Your task to perform on an android device: turn on javascript in the chrome app Image 0: 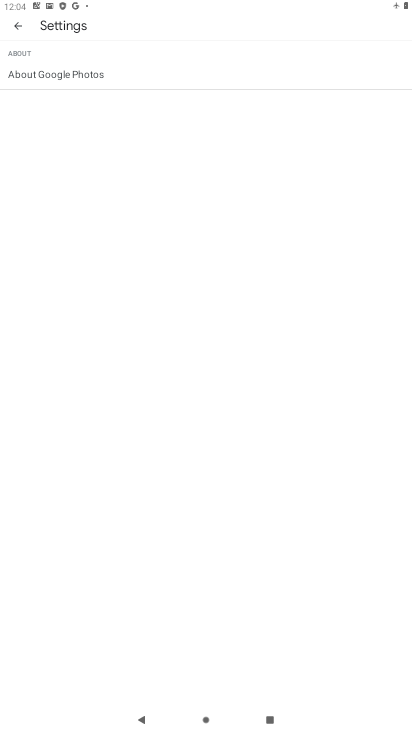
Step 0: press home button
Your task to perform on an android device: turn on javascript in the chrome app Image 1: 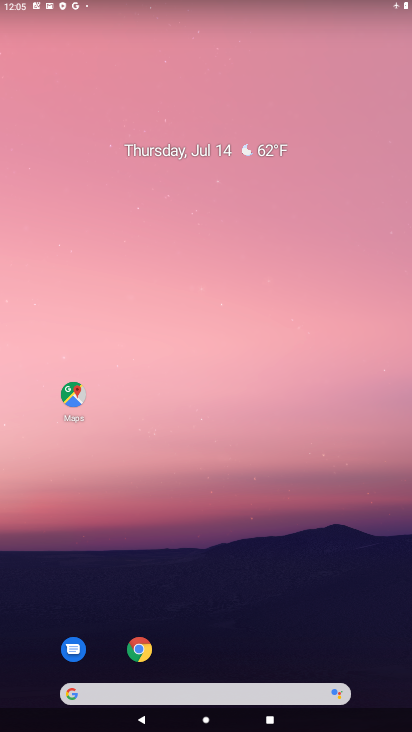
Step 1: drag from (376, 634) to (201, 180)
Your task to perform on an android device: turn on javascript in the chrome app Image 2: 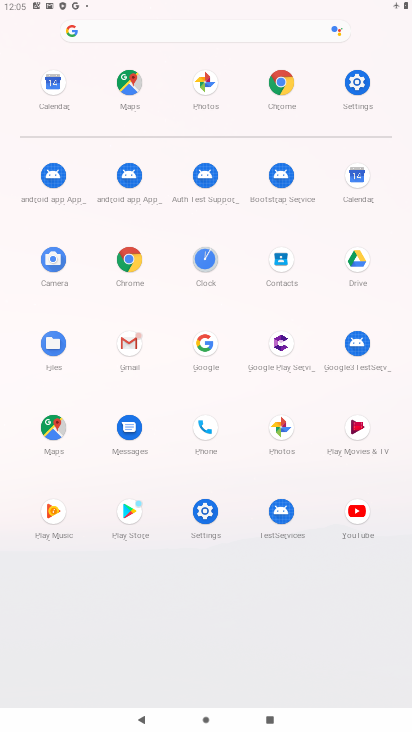
Step 2: click (127, 260)
Your task to perform on an android device: turn on javascript in the chrome app Image 3: 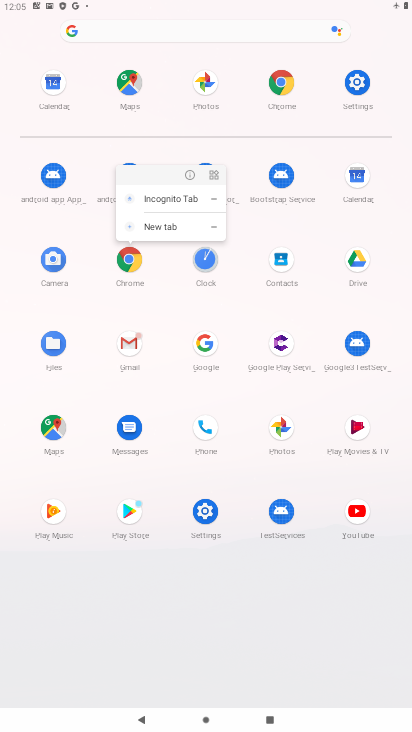
Step 3: click (134, 259)
Your task to perform on an android device: turn on javascript in the chrome app Image 4: 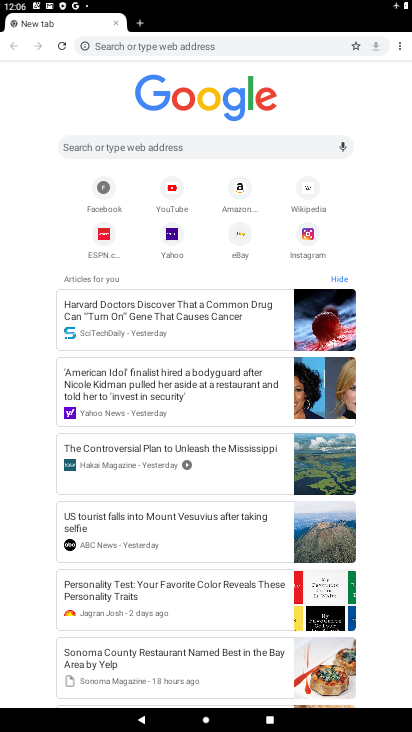
Step 4: click (395, 41)
Your task to perform on an android device: turn on javascript in the chrome app Image 5: 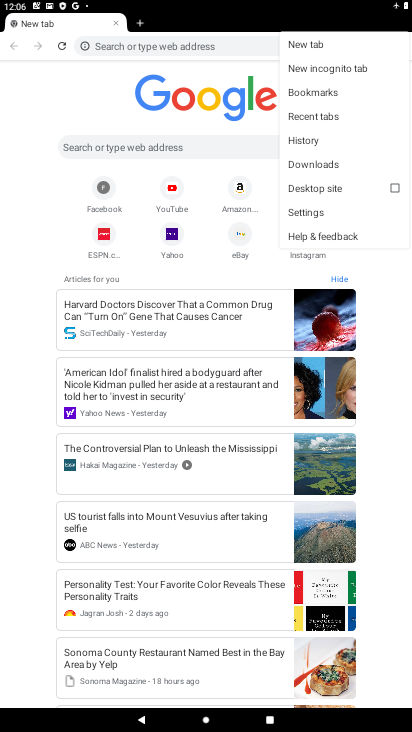
Step 5: click (302, 211)
Your task to perform on an android device: turn on javascript in the chrome app Image 6: 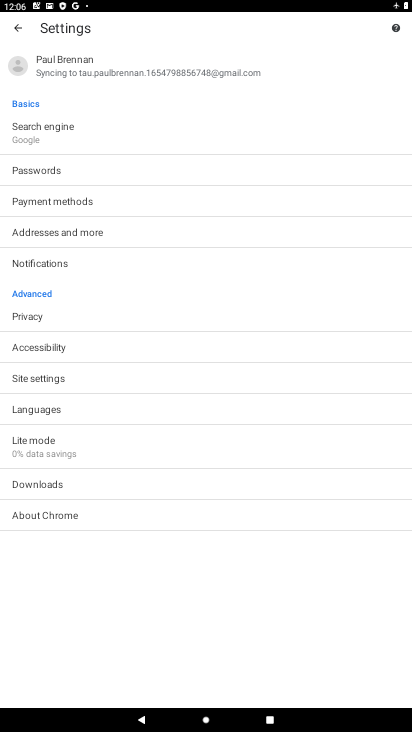
Step 6: click (32, 380)
Your task to perform on an android device: turn on javascript in the chrome app Image 7: 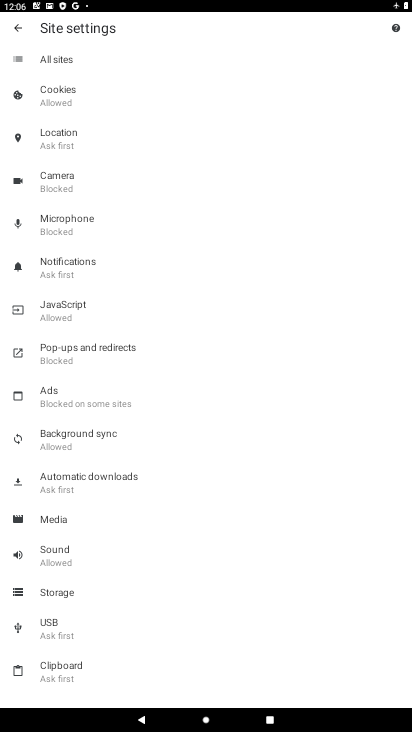
Step 7: click (100, 315)
Your task to perform on an android device: turn on javascript in the chrome app Image 8: 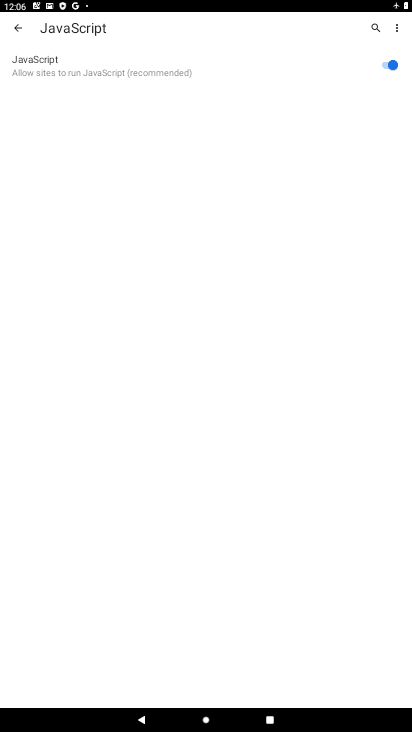
Step 8: task complete